Your task to perform on an android device: check data usage Image 0: 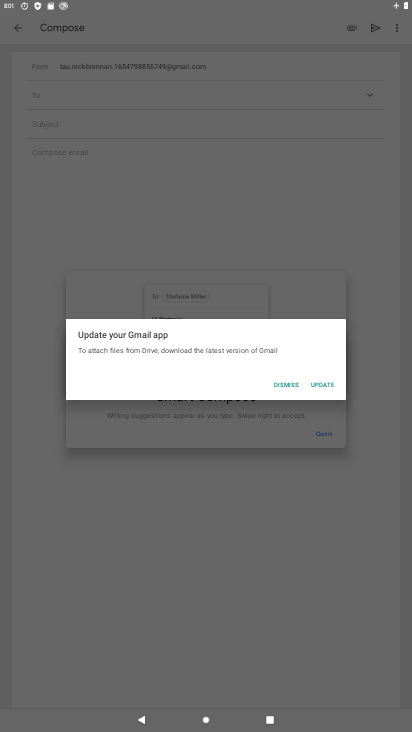
Step 0: press home button
Your task to perform on an android device: check data usage Image 1: 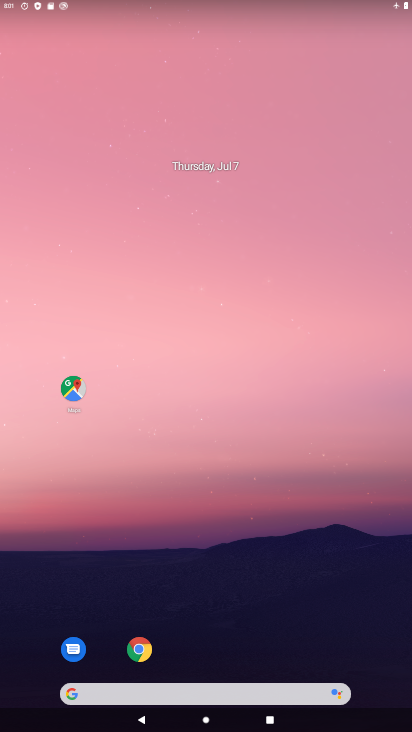
Step 1: drag from (216, 658) to (219, 2)
Your task to perform on an android device: check data usage Image 2: 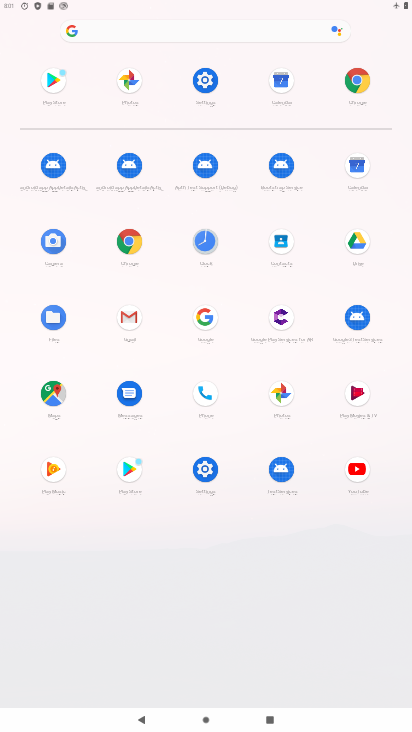
Step 2: click (205, 74)
Your task to perform on an android device: check data usage Image 3: 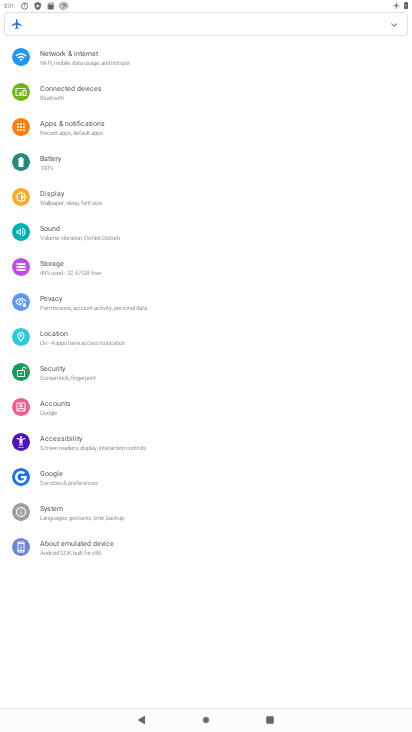
Step 3: click (102, 49)
Your task to perform on an android device: check data usage Image 4: 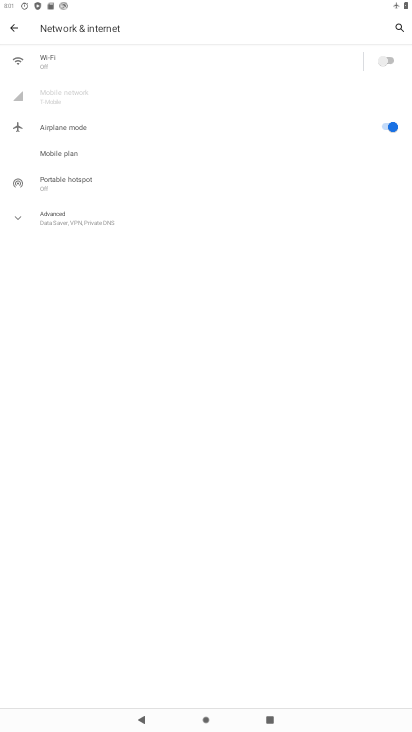
Step 4: click (389, 123)
Your task to perform on an android device: check data usage Image 5: 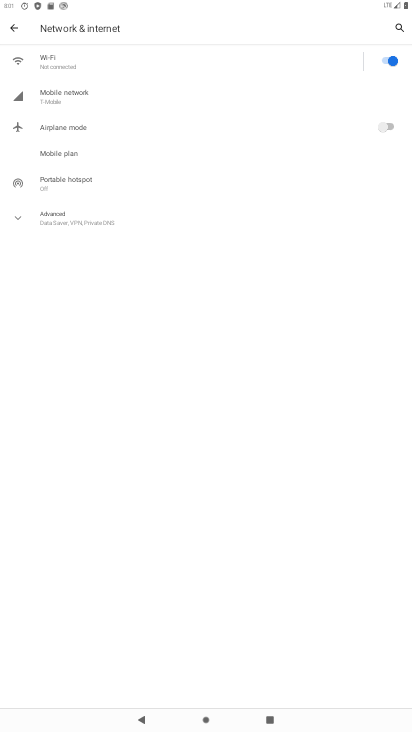
Step 5: click (79, 96)
Your task to perform on an android device: check data usage Image 6: 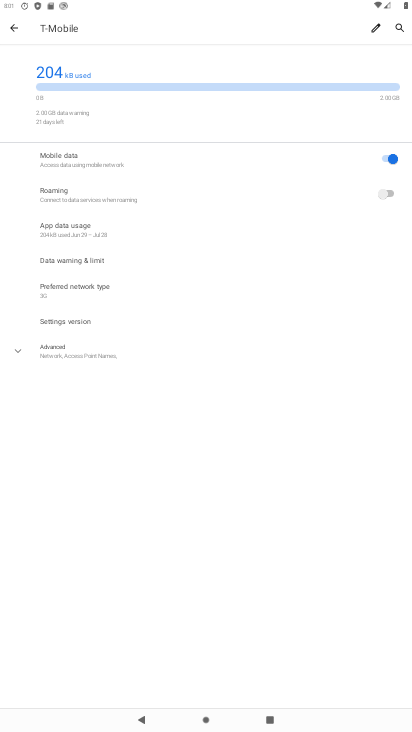
Step 6: click (90, 222)
Your task to perform on an android device: check data usage Image 7: 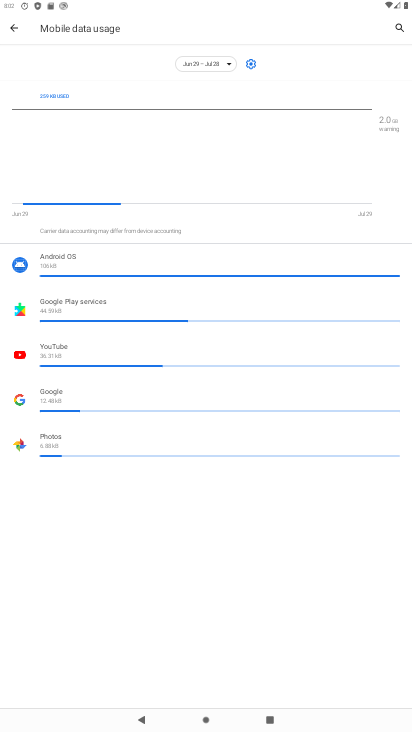
Step 7: task complete